Your task to perform on an android device: open app "Paramount+ | Peak Streaming" Image 0: 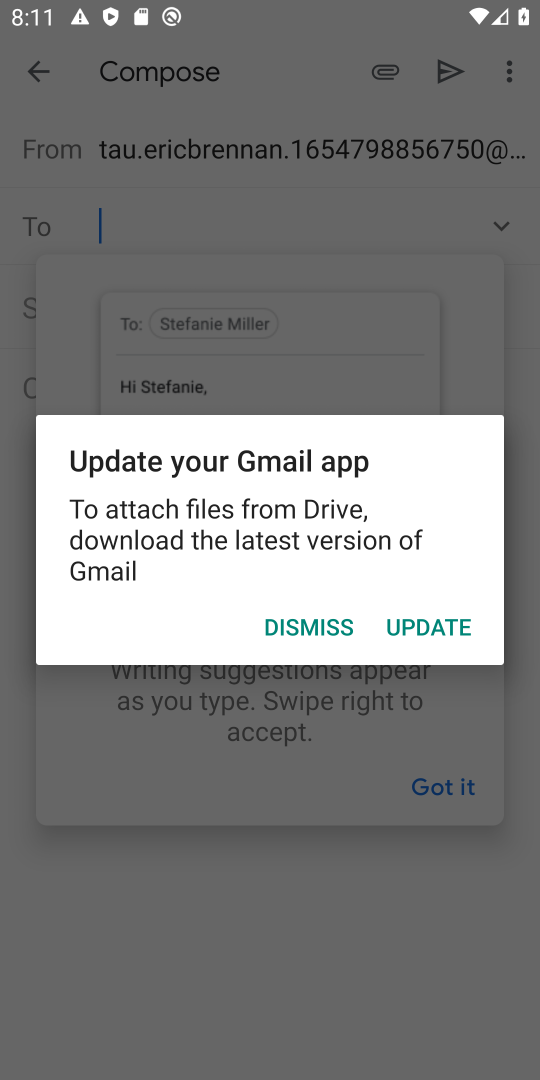
Step 0: press home button
Your task to perform on an android device: open app "Paramount+ | Peak Streaming" Image 1: 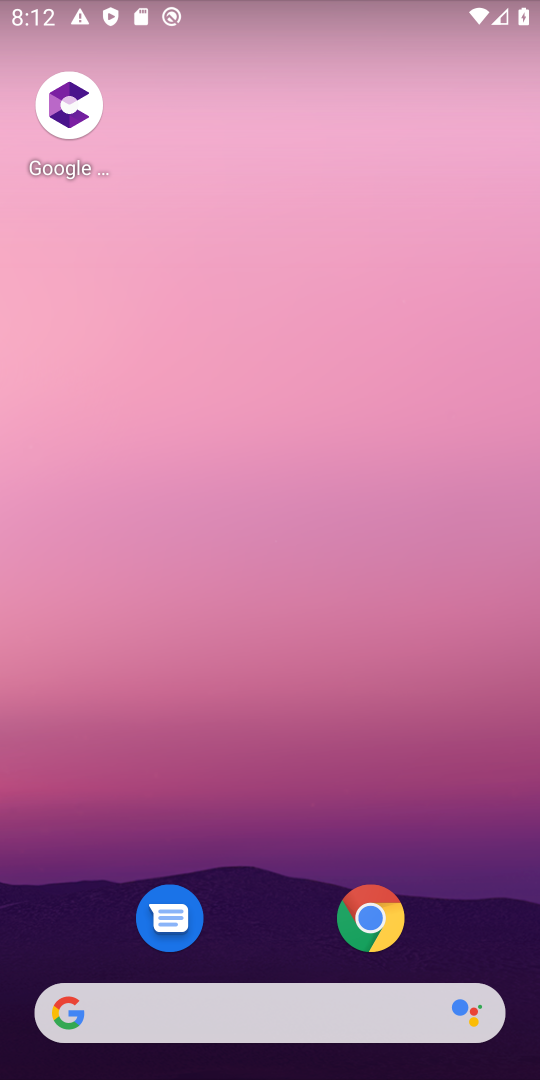
Step 1: drag from (370, 995) to (353, 218)
Your task to perform on an android device: open app "Paramount+ | Peak Streaming" Image 2: 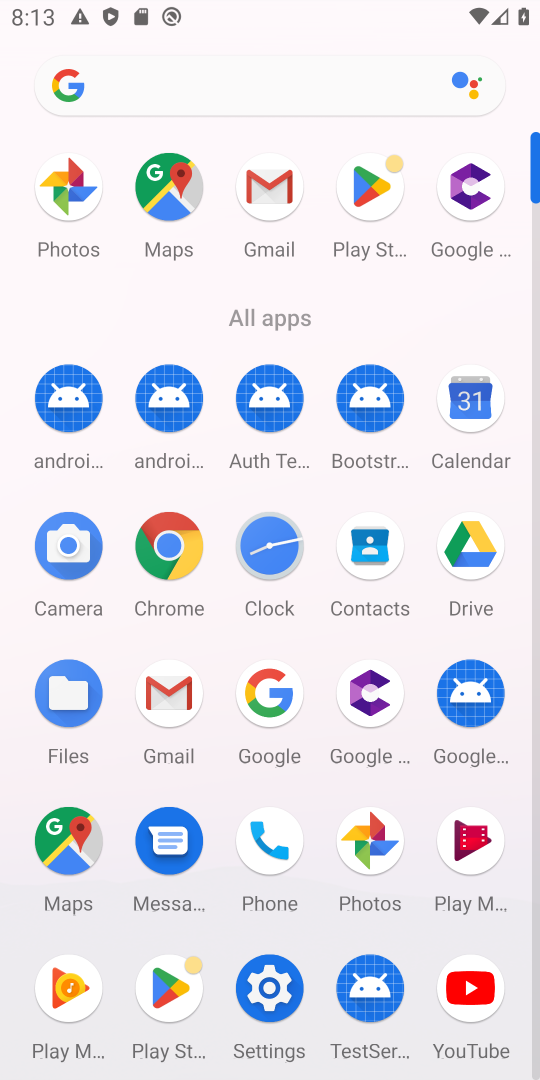
Step 2: click (384, 185)
Your task to perform on an android device: open app "Paramount+ | Peak Streaming" Image 3: 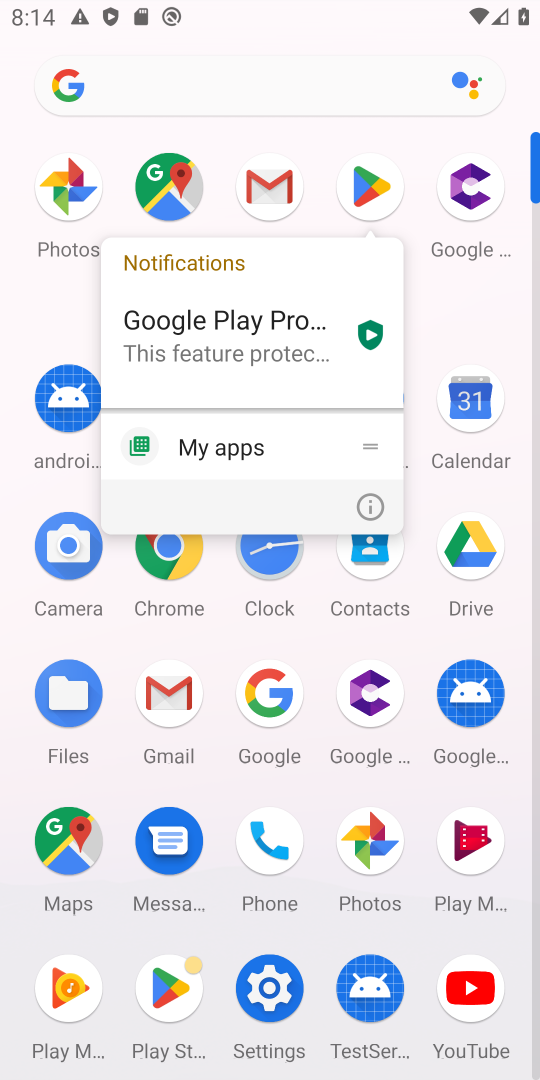
Step 3: click (366, 177)
Your task to perform on an android device: open app "Paramount+ | Peak Streaming" Image 4: 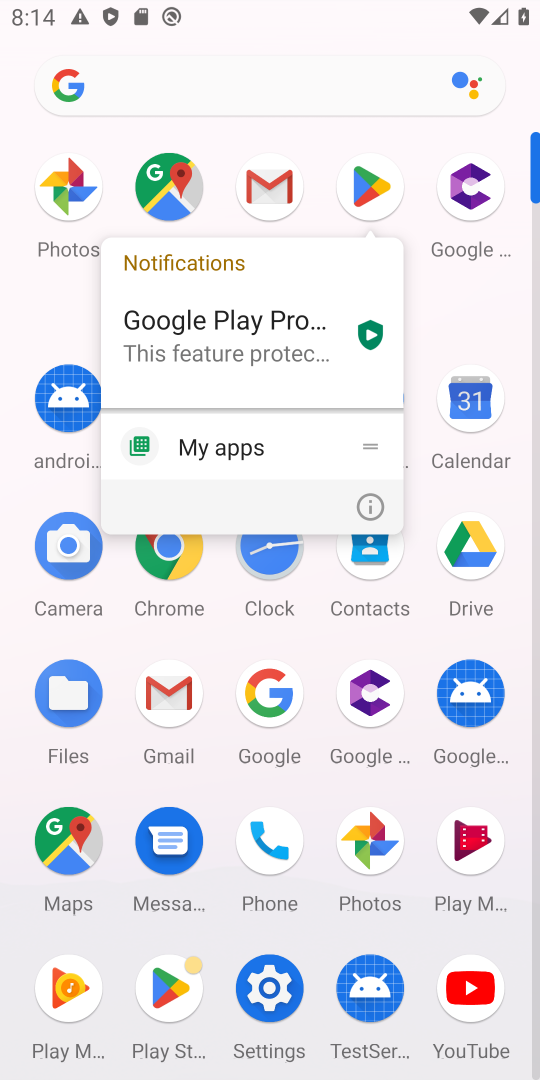
Step 4: click (366, 177)
Your task to perform on an android device: open app "Paramount+ | Peak Streaming" Image 5: 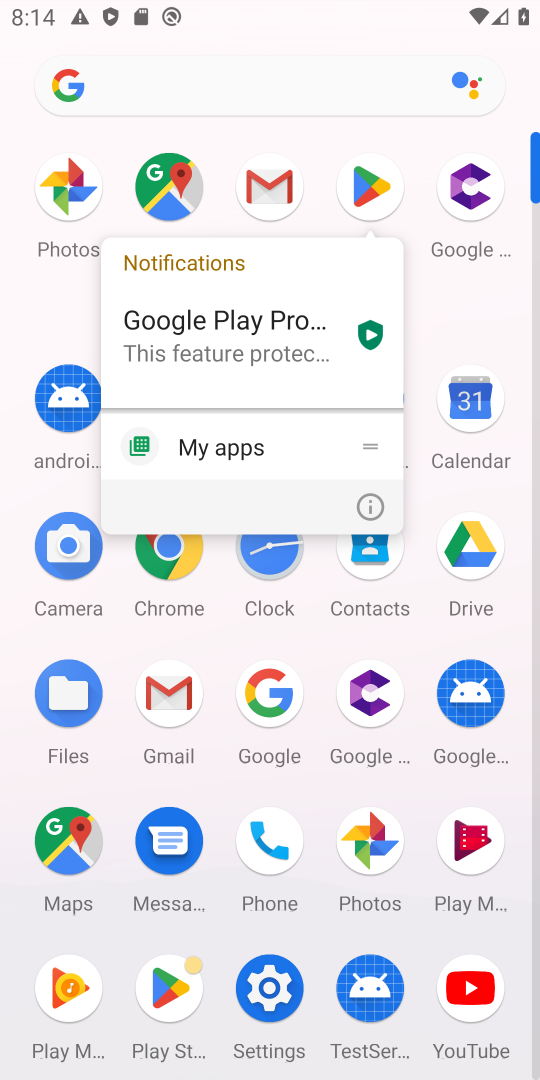
Step 5: click (366, 177)
Your task to perform on an android device: open app "Paramount+ | Peak Streaming" Image 6: 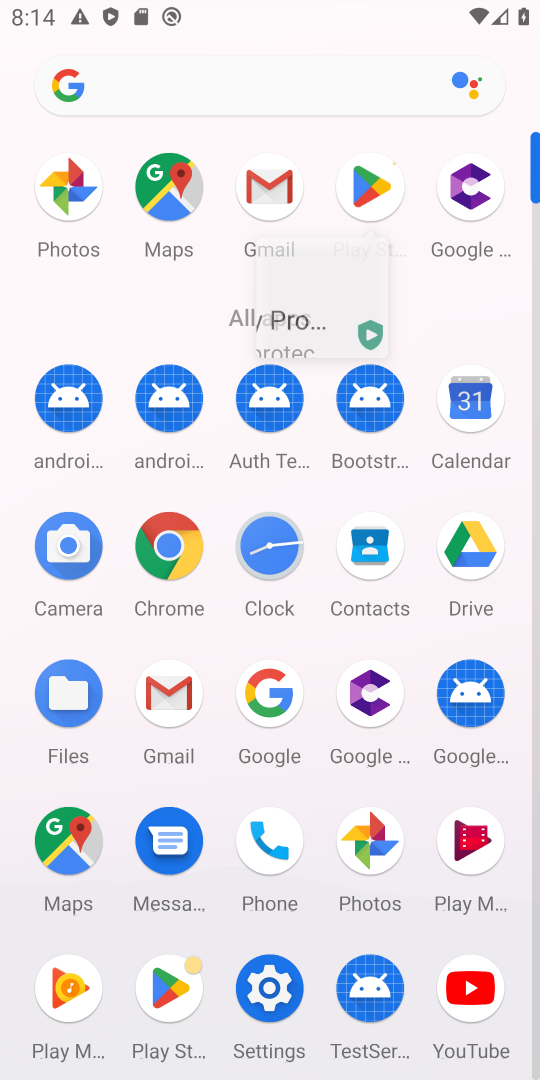
Step 6: click (366, 177)
Your task to perform on an android device: open app "Paramount+ | Peak Streaming" Image 7: 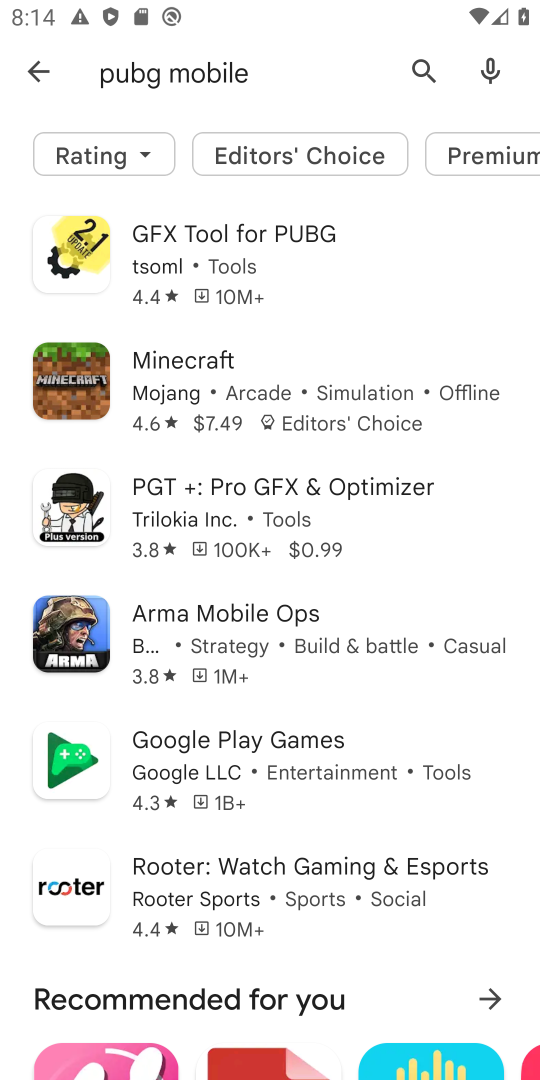
Step 7: click (366, 177)
Your task to perform on an android device: open app "Paramount+ | Peak Streaming" Image 8: 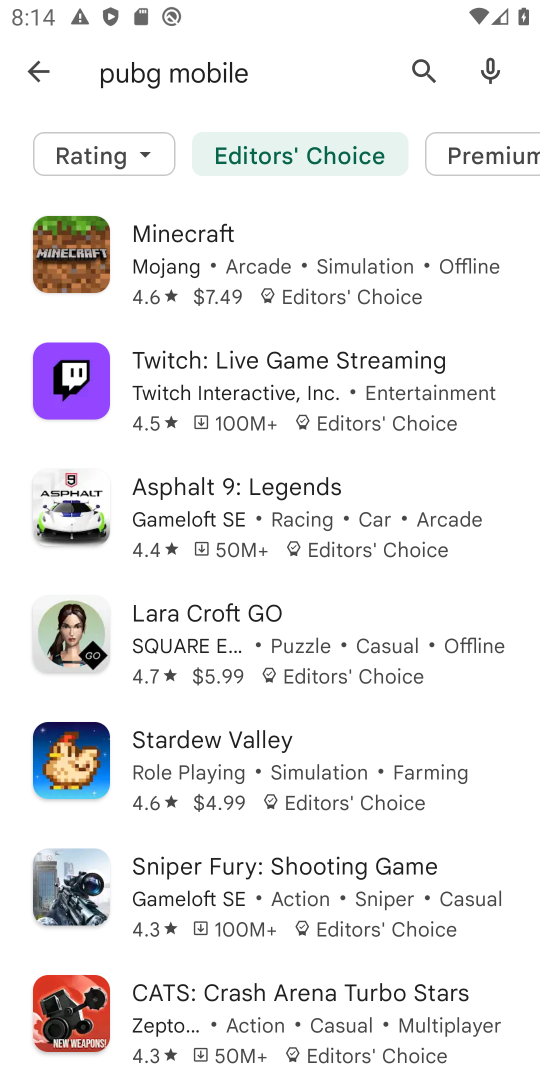
Step 8: click (426, 63)
Your task to perform on an android device: open app "Paramount+ | Peak Streaming" Image 9: 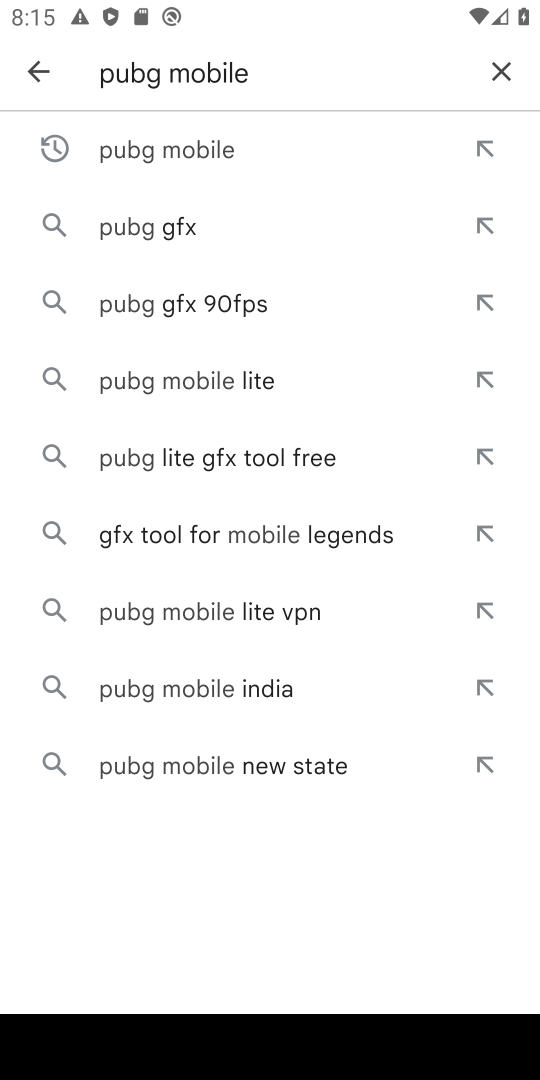
Step 9: click (497, 74)
Your task to perform on an android device: open app "Paramount+ | Peak Streaming" Image 10: 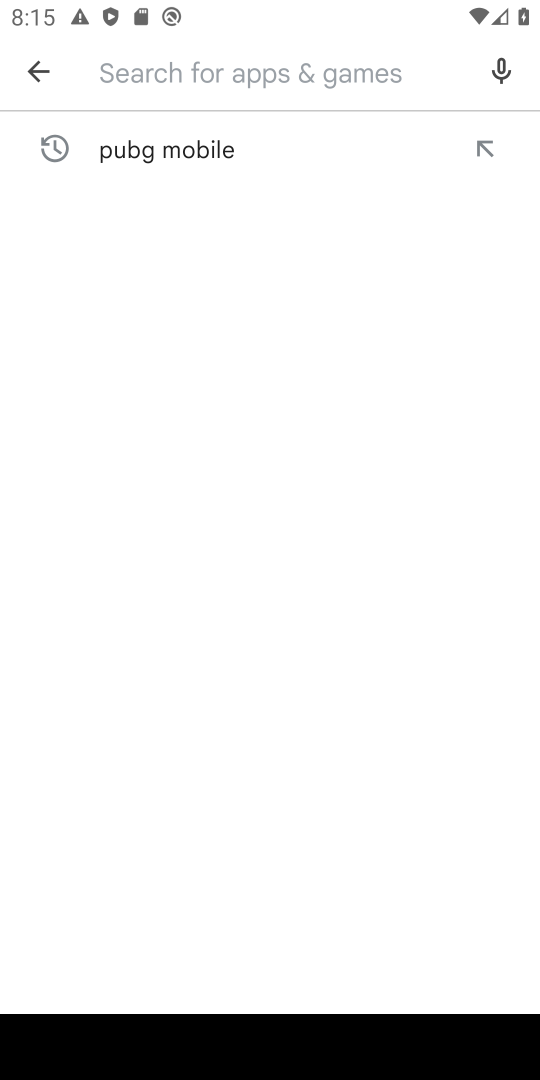
Step 10: type "paramount+ | Peak Streaming"
Your task to perform on an android device: open app "Paramount+ | Peak Streaming" Image 11: 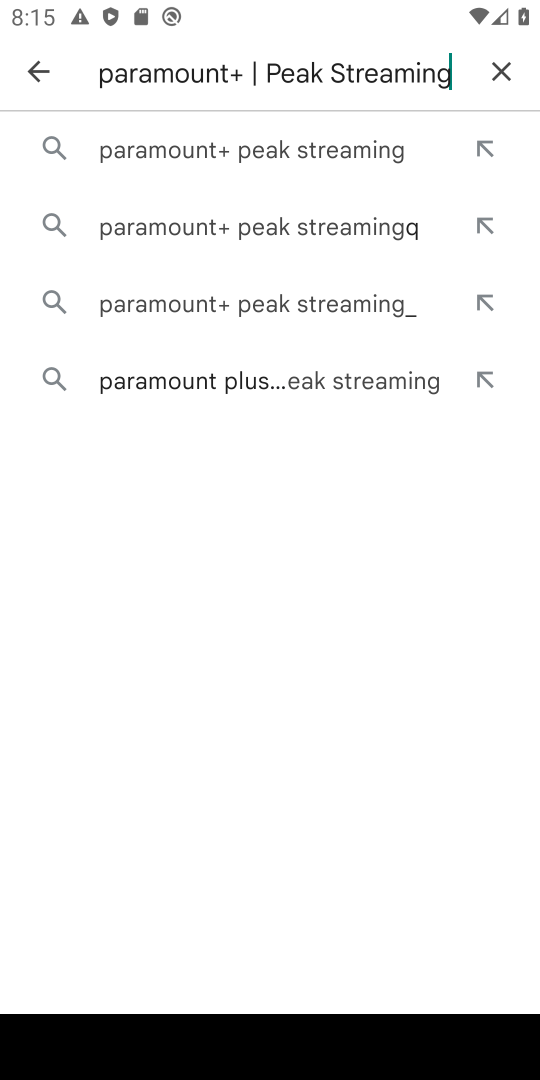
Step 11: type ""
Your task to perform on an android device: open app "Paramount+ | Peak Streaming" Image 12: 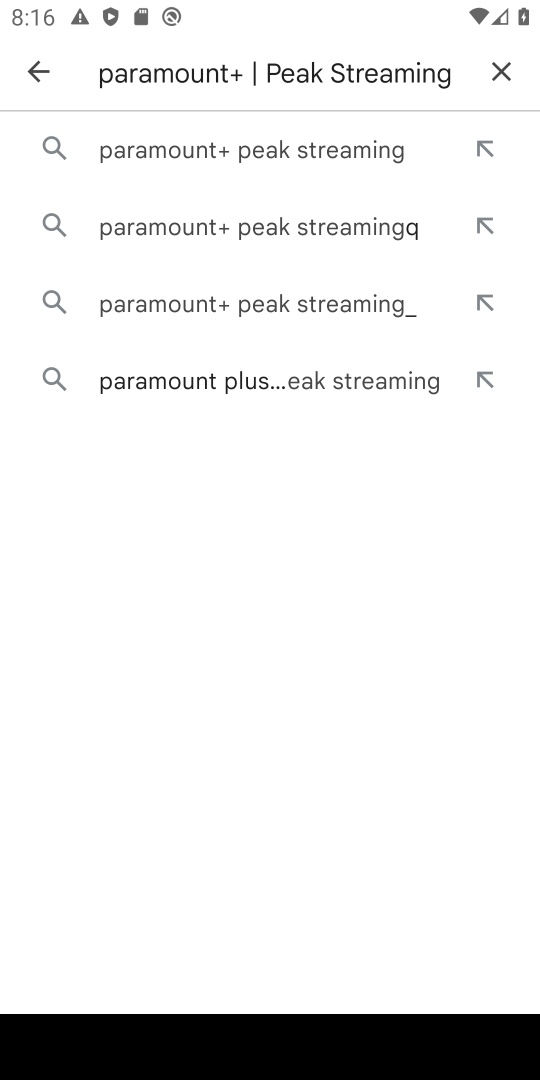
Step 12: type ""
Your task to perform on an android device: open app "Paramount+ | Peak Streaming" Image 13: 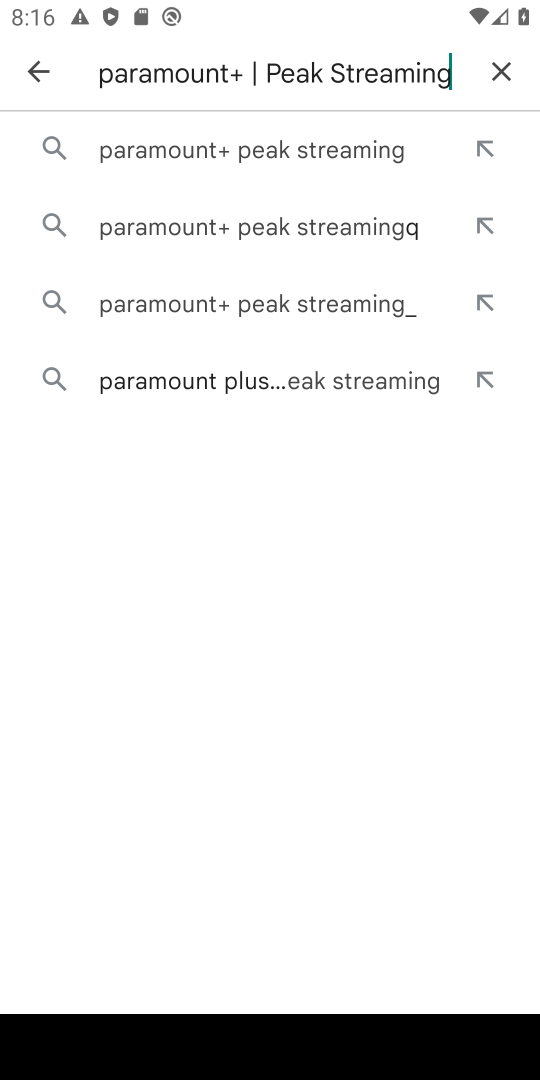
Step 13: click (190, 153)
Your task to perform on an android device: open app "Paramount+ | Peak Streaming" Image 14: 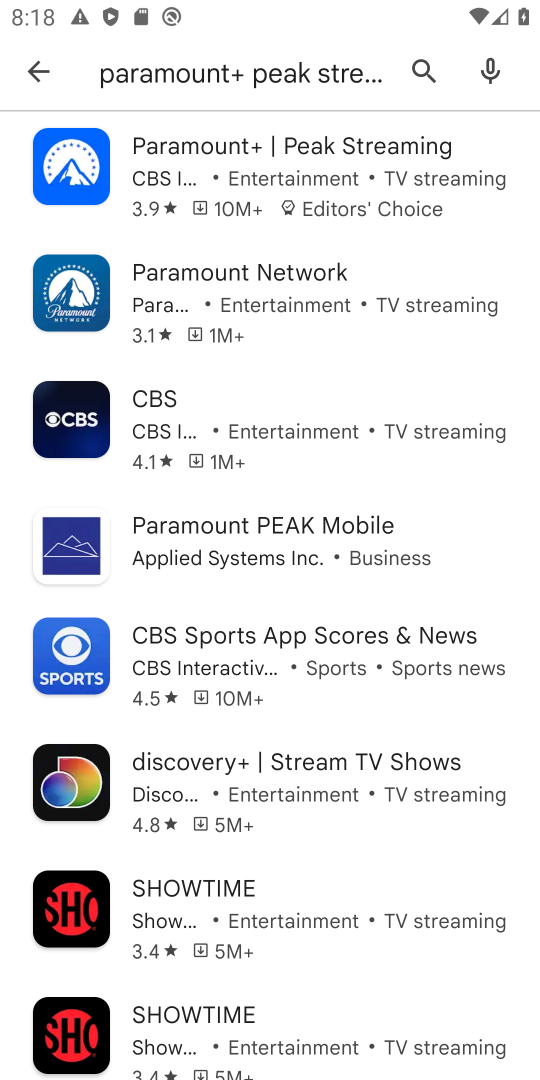
Step 14: click (366, 168)
Your task to perform on an android device: open app "Paramount+ | Peak Streaming" Image 15: 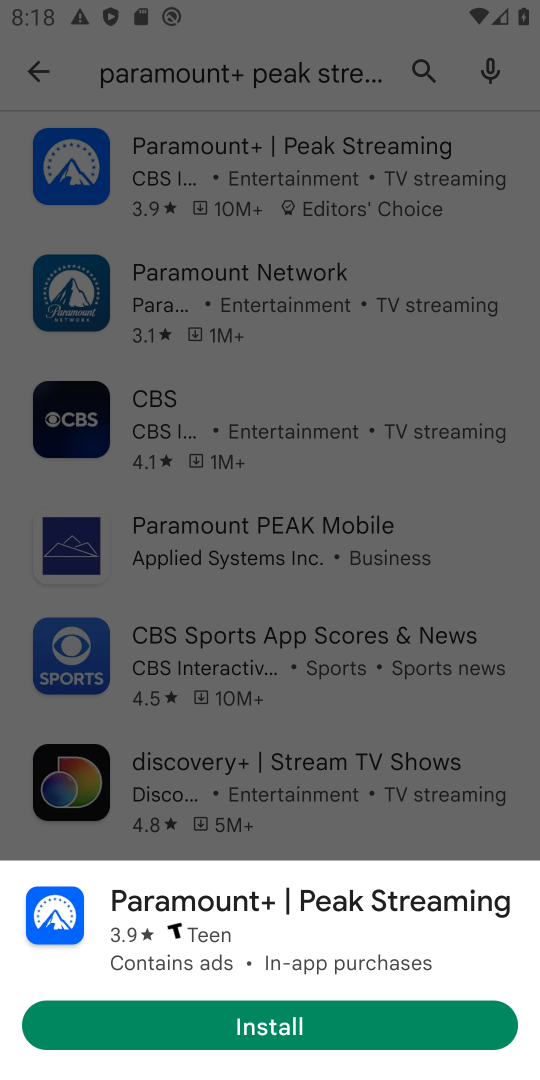
Step 15: task complete